Your task to perform on an android device: Search for "usb-c to usb-b" on target, select the first entry, add it to the cart, then select checkout. Image 0: 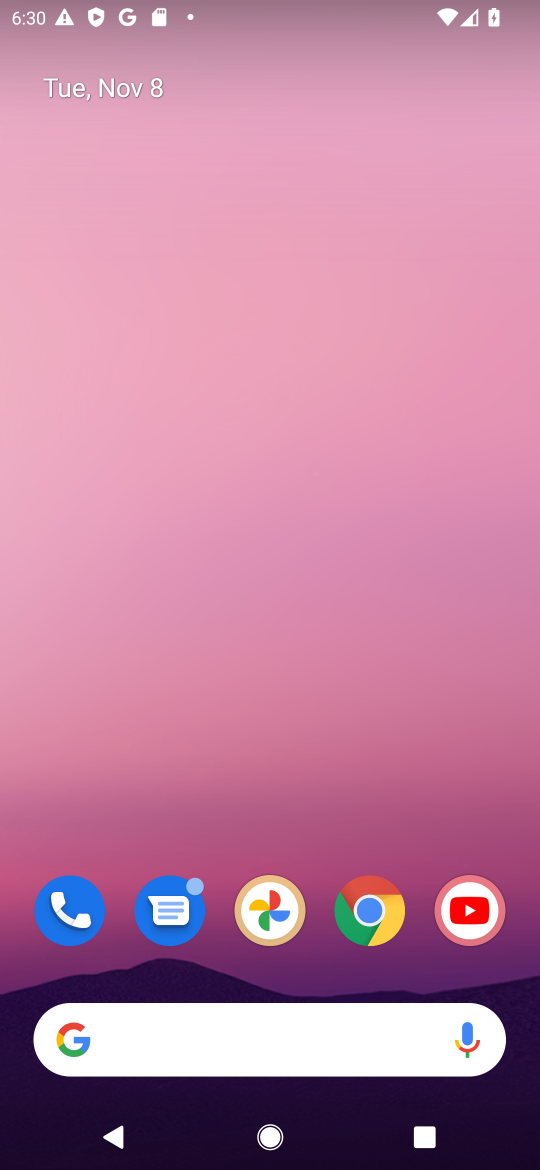
Step 0: click (358, 899)
Your task to perform on an android device: Search for "usb-c to usb-b" on target, select the first entry, add it to the cart, then select checkout. Image 1: 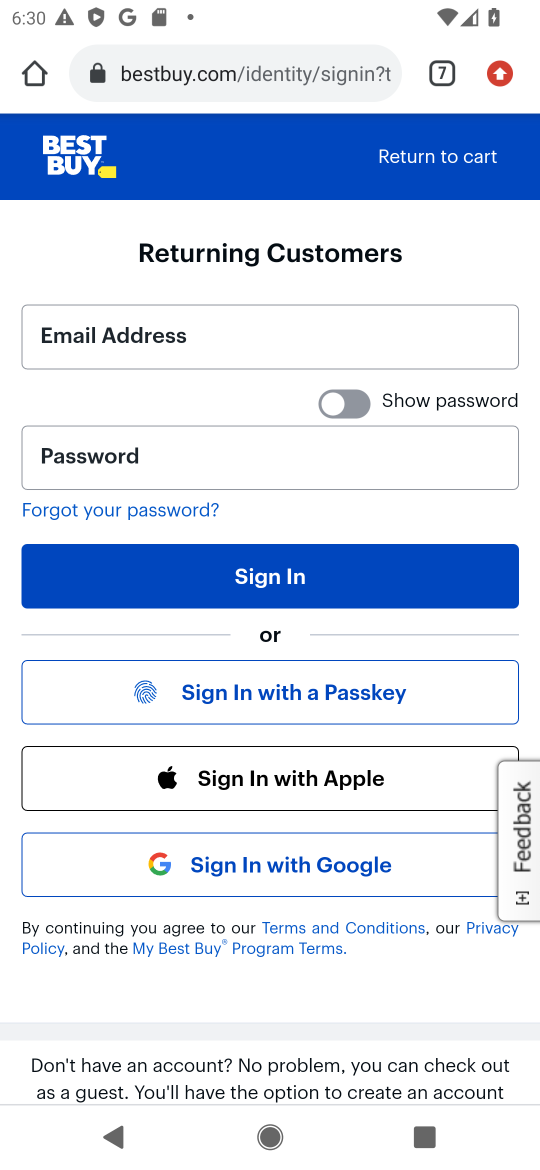
Step 1: click (449, 155)
Your task to perform on an android device: Search for "usb-c to usb-b" on target, select the first entry, add it to the cart, then select checkout. Image 2: 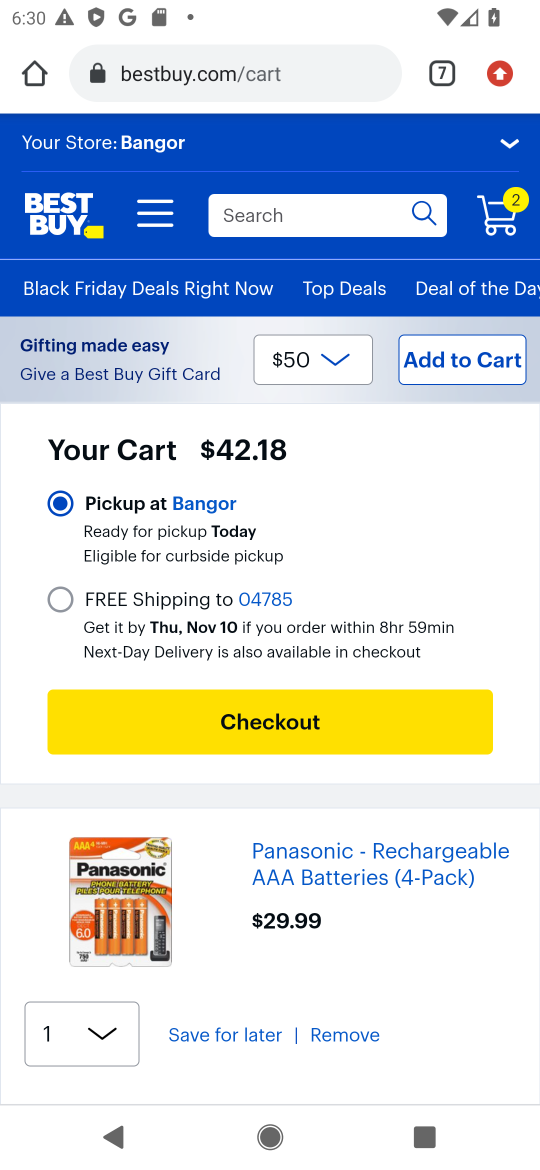
Step 2: click (324, 216)
Your task to perform on an android device: Search for "usb-c to usb-b" on target, select the first entry, add it to the cart, then select checkout. Image 3: 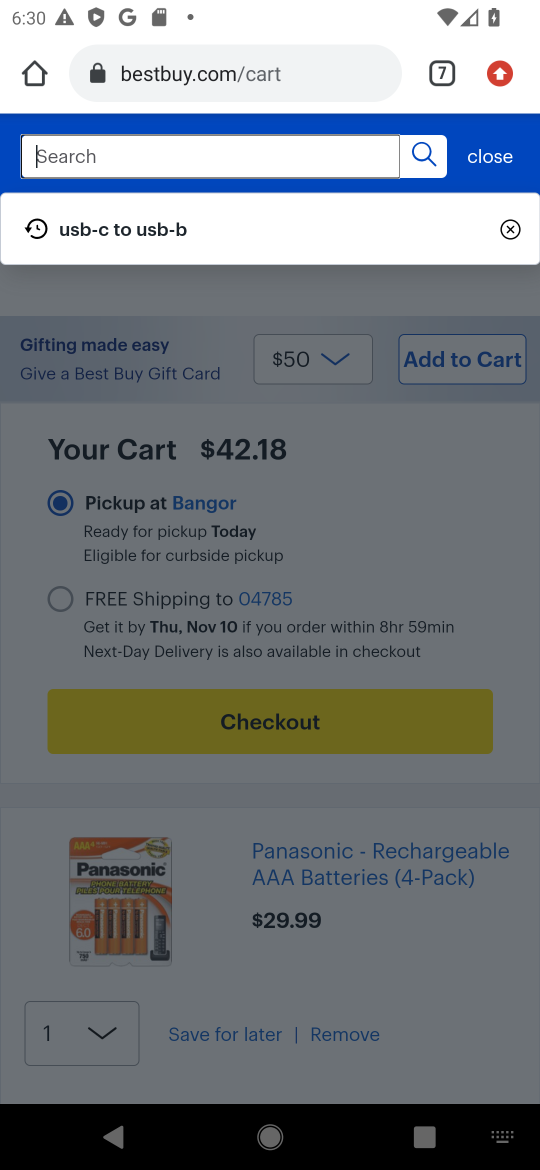
Step 3: type "usb-c to usb-b"
Your task to perform on an android device: Search for "usb-c to usb-b" on target, select the first entry, add it to the cart, then select checkout. Image 4: 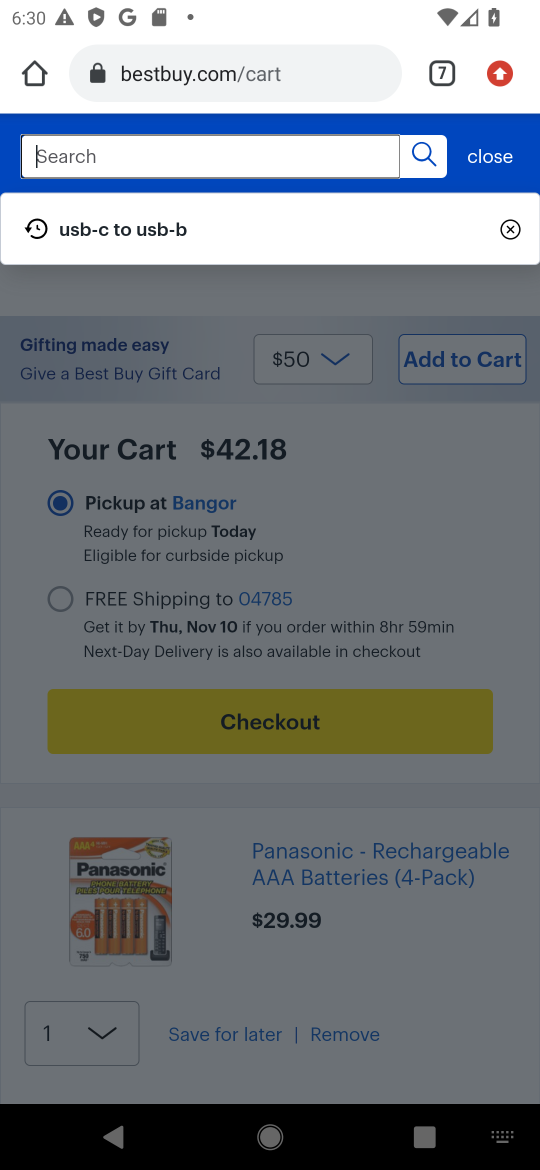
Step 4: click (161, 230)
Your task to perform on an android device: Search for "usb-c to usb-b" on target, select the first entry, add it to the cart, then select checkout. Image 5: 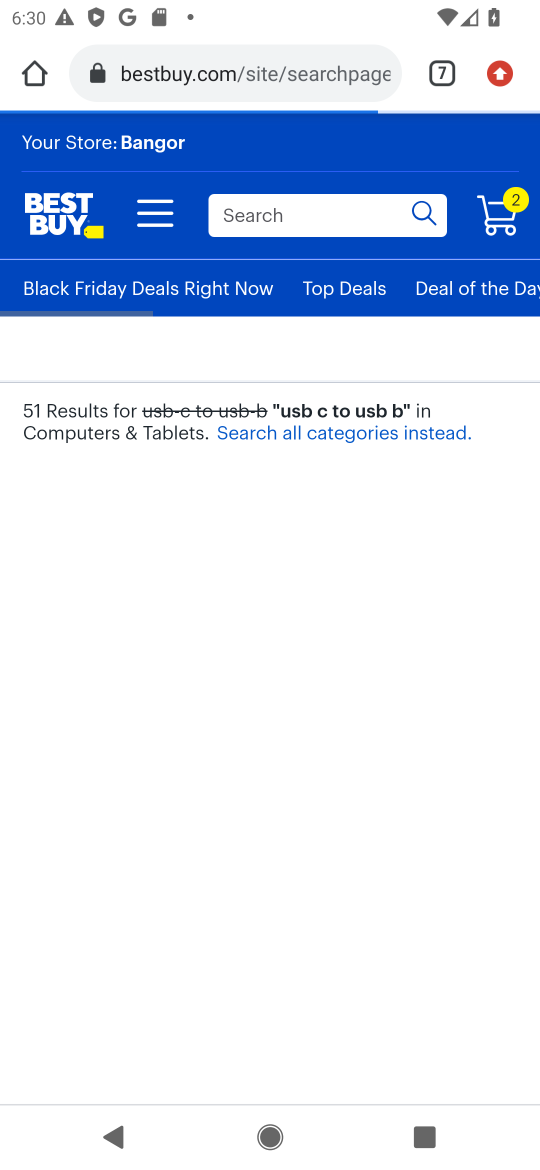
Step 5: click (425, 149)
Your task to perform on an android device: Search for "usb-c to usb-b" on target, select the first entry, add it to the cart, then select checkout. Image 6: 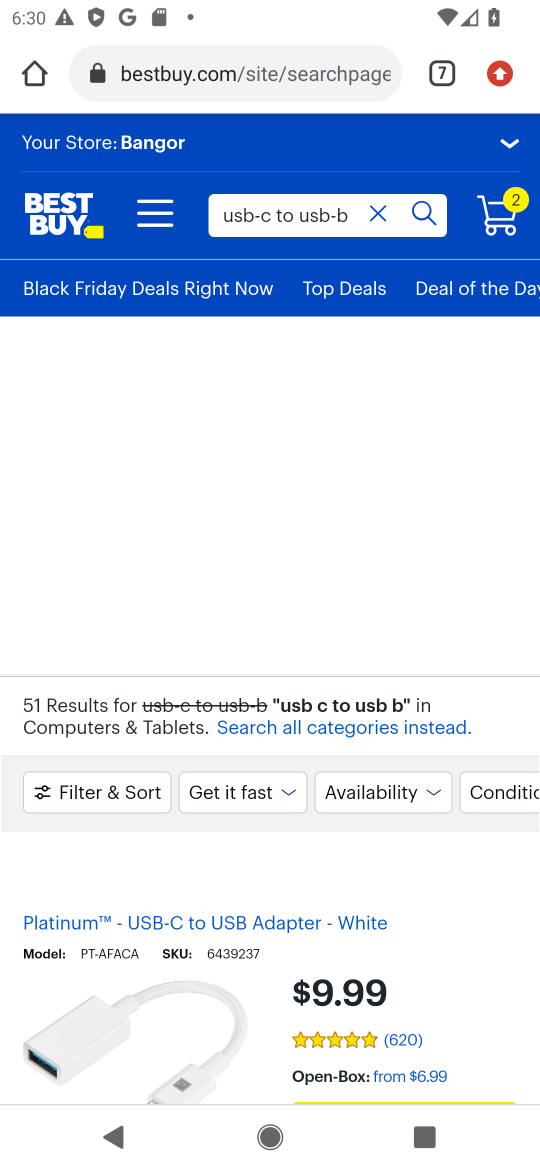
Step 6: drag from (396, 918) to (422, 630)
Your task to perform on an android device: Search for "usb-c to usb-b" on target, select the first entry, add it to the cart, then select checkout. Image 7: 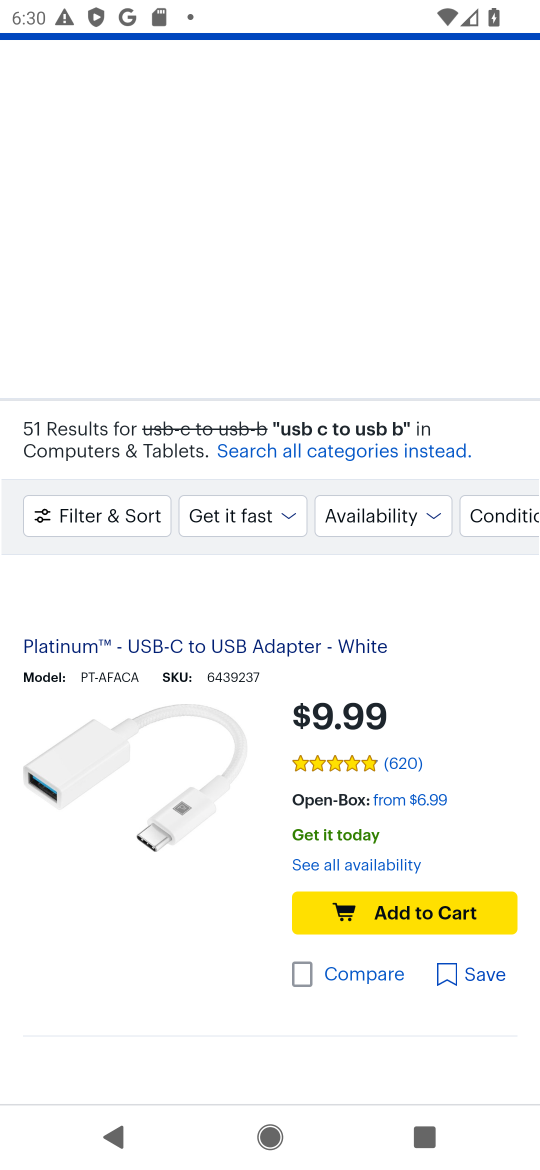
Step 7: click (378, 909)
Your task to perform on an android device: Search for "usb-c to usb-b" on target, select the first entry, add it to the cart, then select checkout. Image 8: 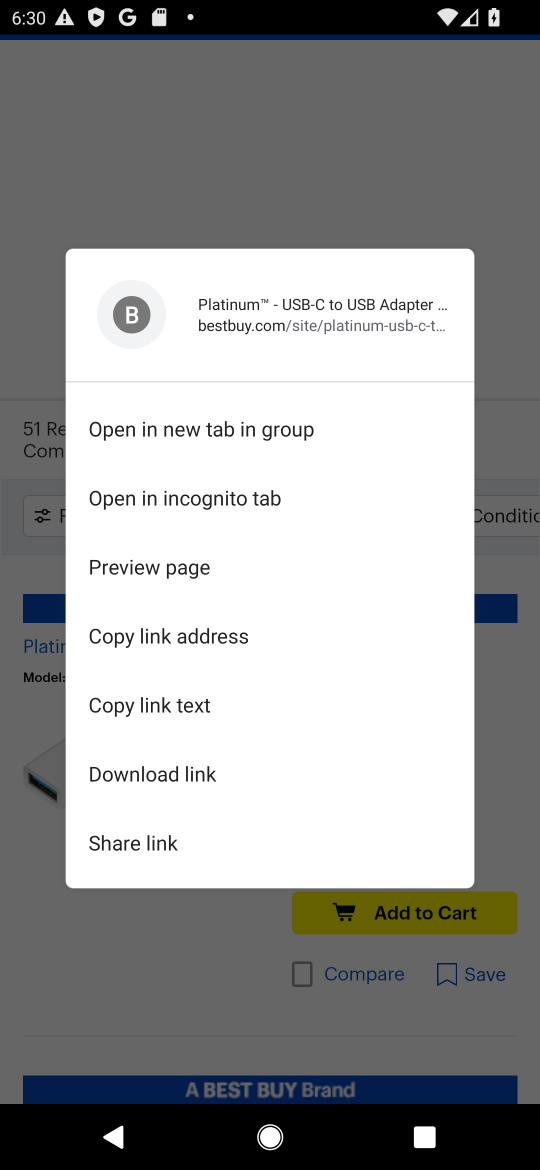
Step 8: click (506, 599)
Your task to perform on an android device: Search for "usb-c to usb-b" on target, select the first entry, add it to the cart, then select checkout. Image 9: 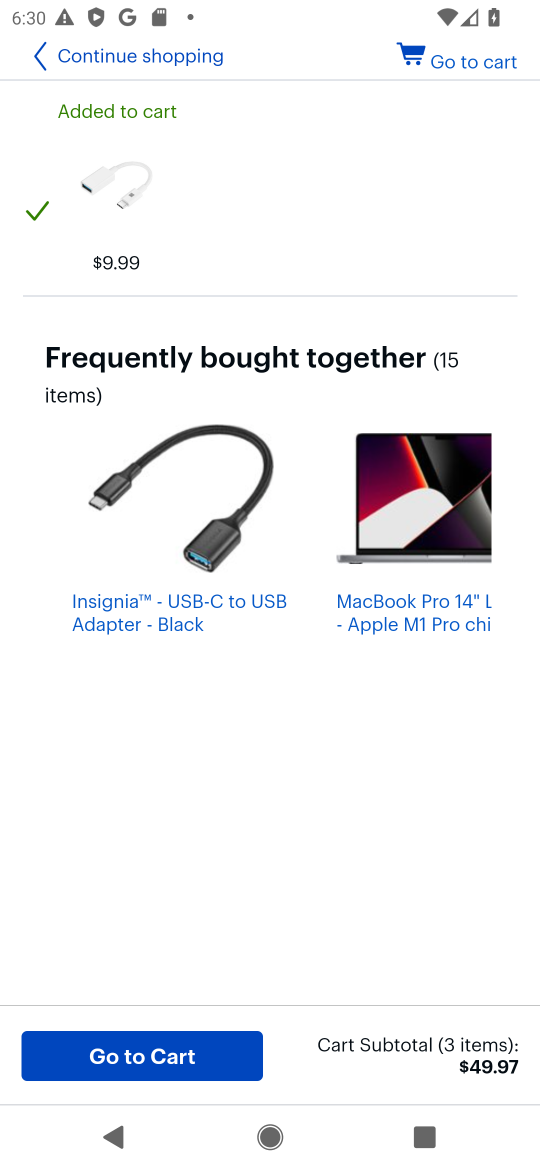
Step 9: click (169, 1062)
Your task to perform on an android device: Search for "usb-c to usb-b" on target, select the first entry, add it to the cart, then select checkout. Image 10: 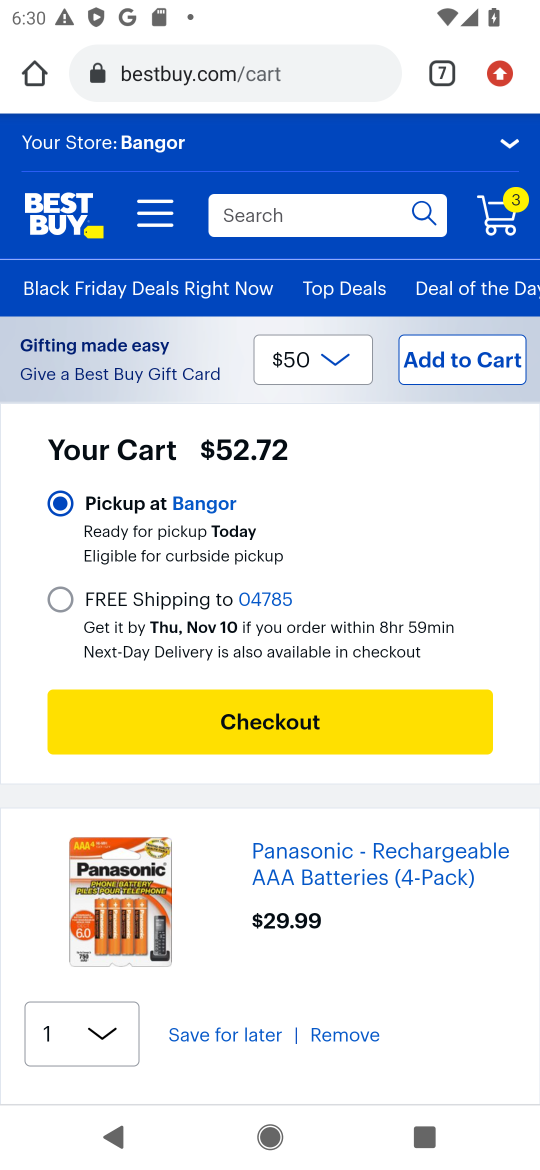
Step 10: click (333, 715)
Your task to perform on an android device: Search for "usb-c to usb-b" on target, select the first entry, add it to the cart, then select checkout. Image 11: 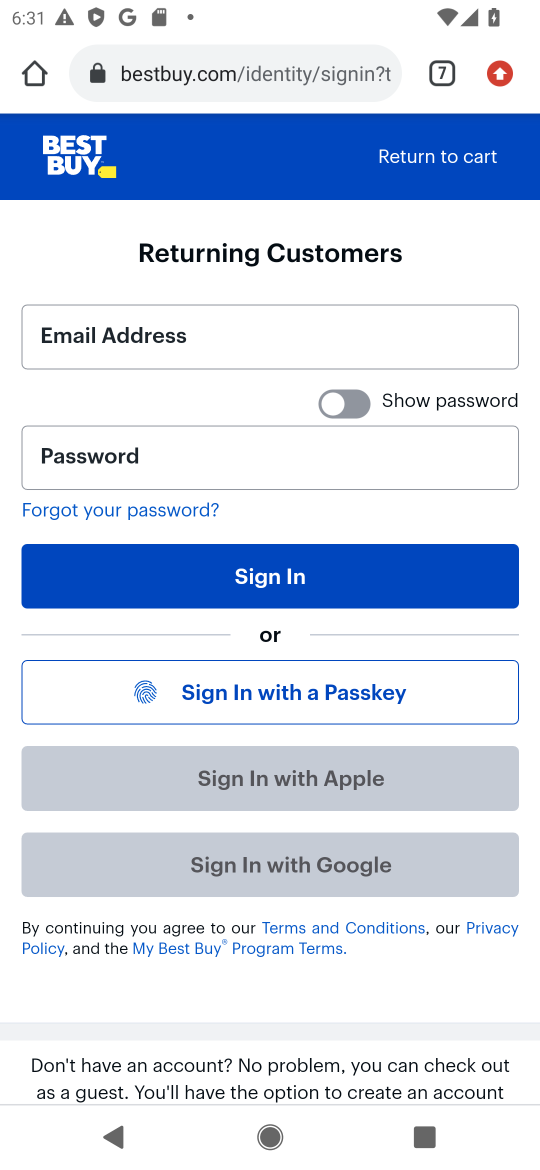
Step 11: task complete